Your task to perform on an android device: open app "Skype" Image 0: 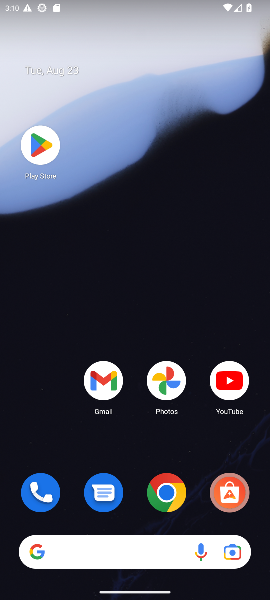
Step 0: drag from (144, 519) to (156, 77)
Your task to perform on an android device: open app "Skype" Image 1: 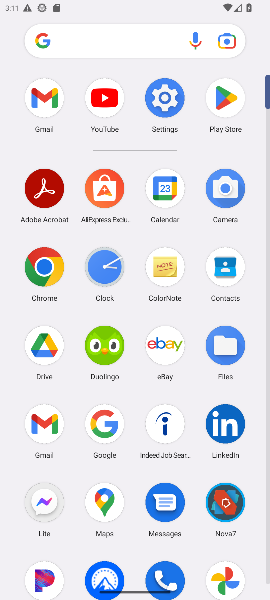
Step 1: click (221, 97)
Your task to perform on an android device: open app "Skype" Image 2: 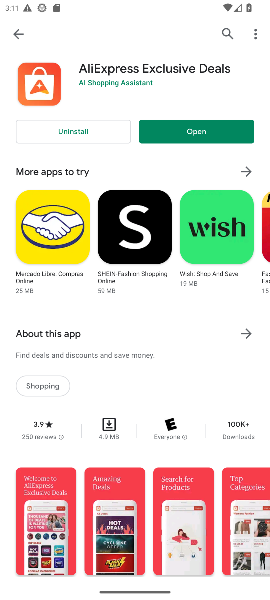
Step 2: click (221, 40)
Your task to perform on an android device: open app "Skype" Image 3: 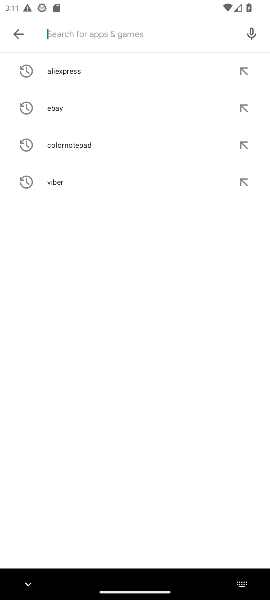
Step 3: type "skype"
Your task to perform on an android device: open app "Skype" Image 4: 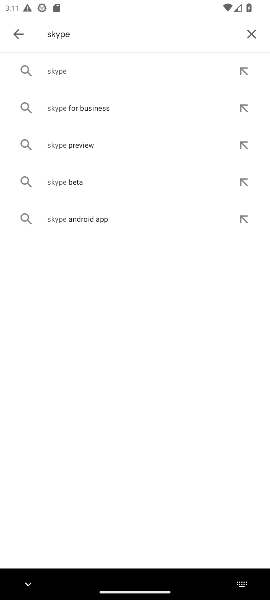
Step 4: click (117, 74)
Your task to perform on an android device: open app "Skype" Image 5: 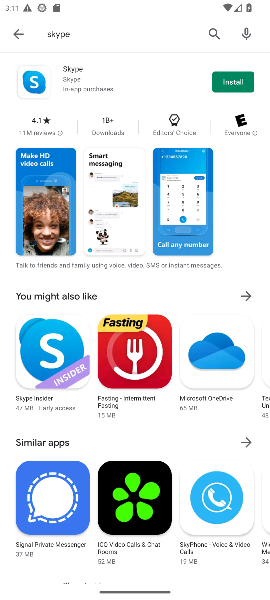
Step 5: click (228, 88)
Your task to perform on an android device: open app "Skype" Image 6: 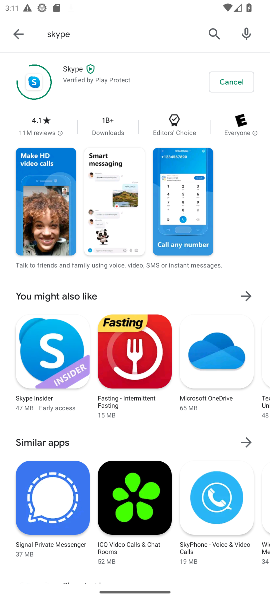
Step 6: task complete